Your task to perform on an android device: turn on javascript in the chrome app Image 0: 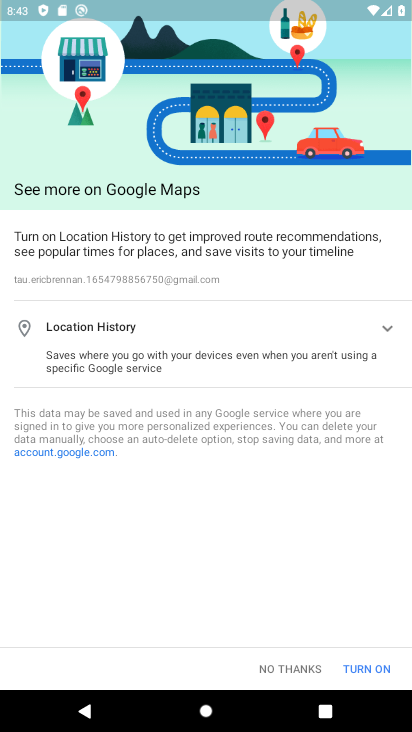
Step 0: click (304, 665)
Your task to perform on an android device: turn on javascript in the chrome app Image 1: 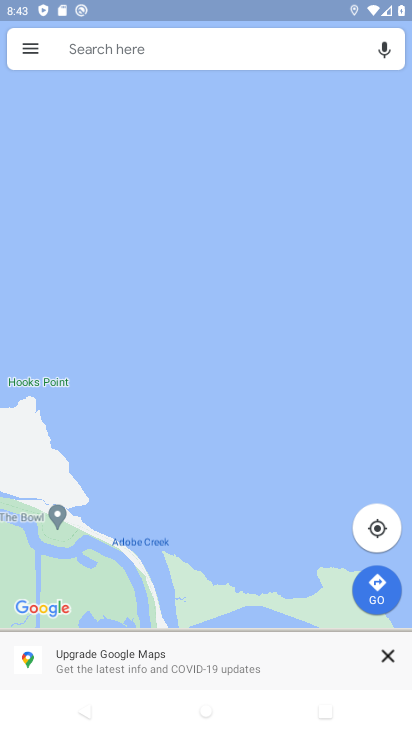
Step 1: press home button
Your task to perform on an android device: turn on javascript in the chrome app Image 2: 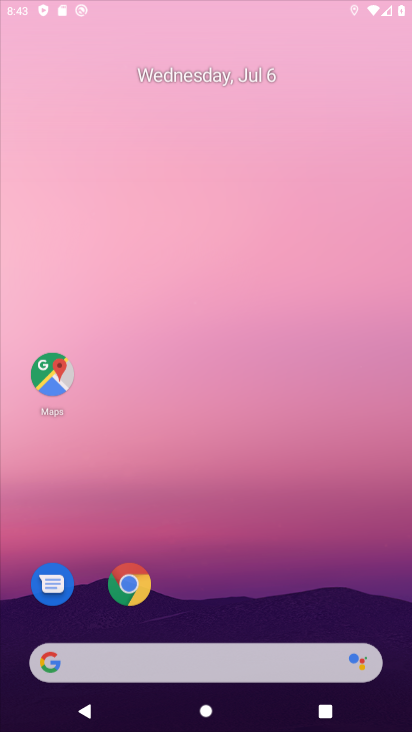
Step 2: drag from (161, 575) to (253, 122)
Your task to perform on an android device: turn on javascript in the chrome app Image 3: 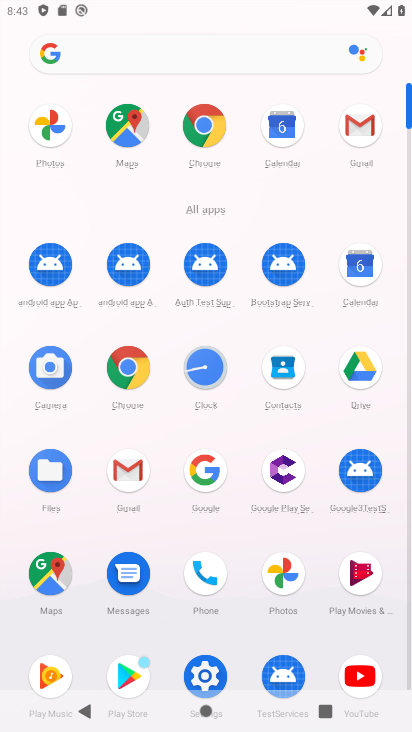
Step 3: click (125, 366)
Your task to perform on an android device: turn on javascript in the chrome app Image 4: 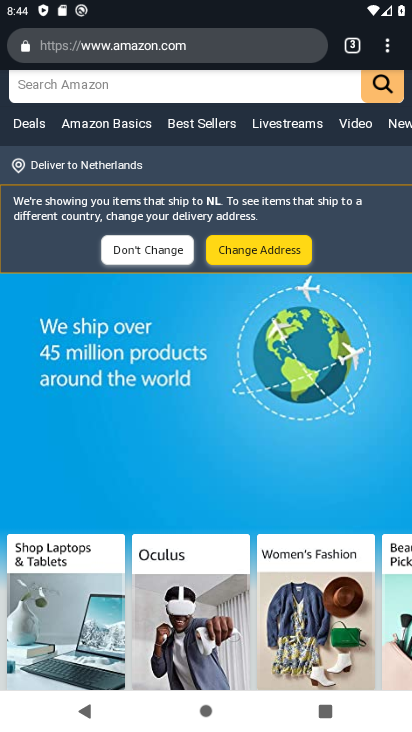
Step 4: drag from (220, 635) to (254, 366)
Your task to perform on an android device: turn on javascript in the chrome app Image 5: 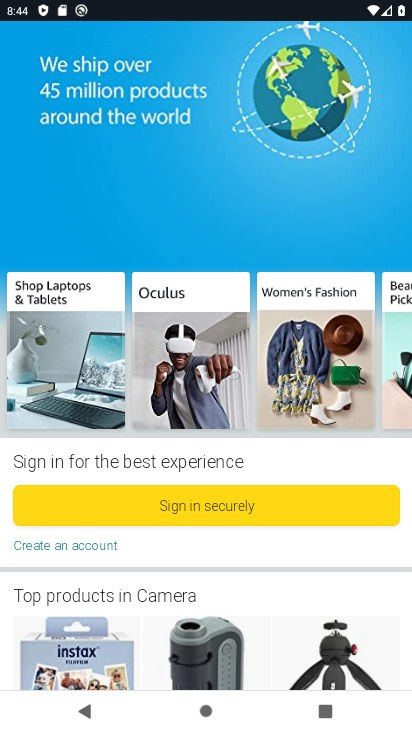
Step 5: drag from (166, 612) to (245, 242)
Your task to perform on an android device: turn on javascript in the chrome app Image 6: 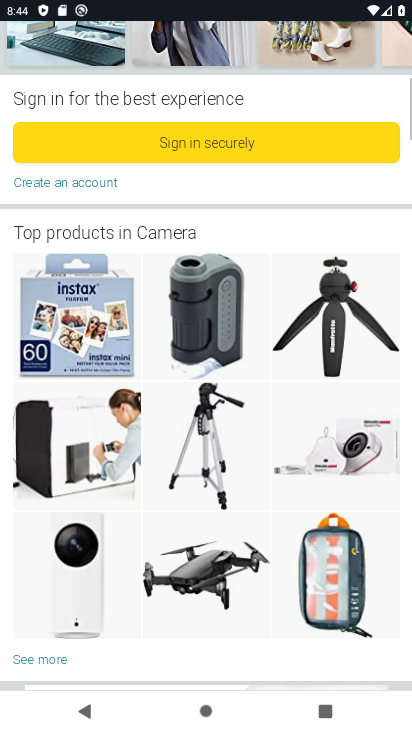
Step 6: drag from (272, 122) to (280, 728)
Your task to perform on an android device: turn on javascript in the chrome app Image 7: 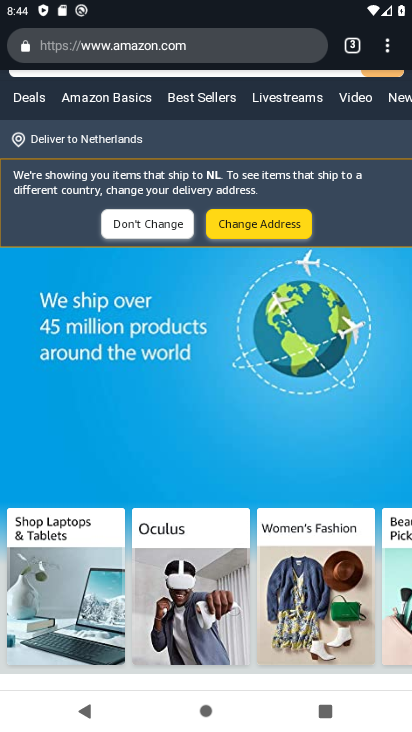
Step 7: click (384, 58)
Your task to perform on an android device: turn on javascript in the chrome app Image 8: 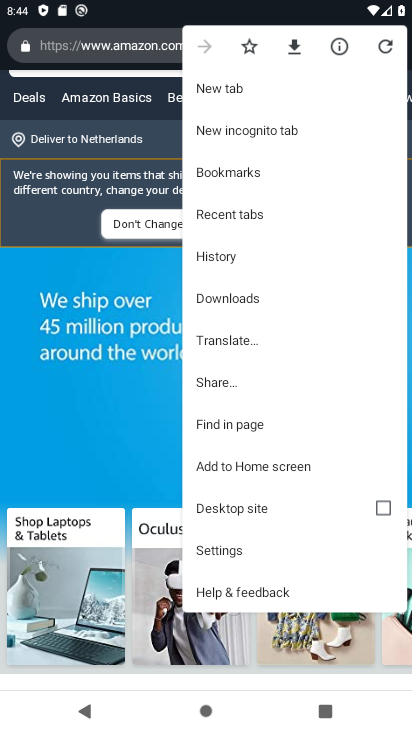
Step 8: click (254, 547)
Your task to perform on an android device: turn on javascript in the chrome app Image 9: 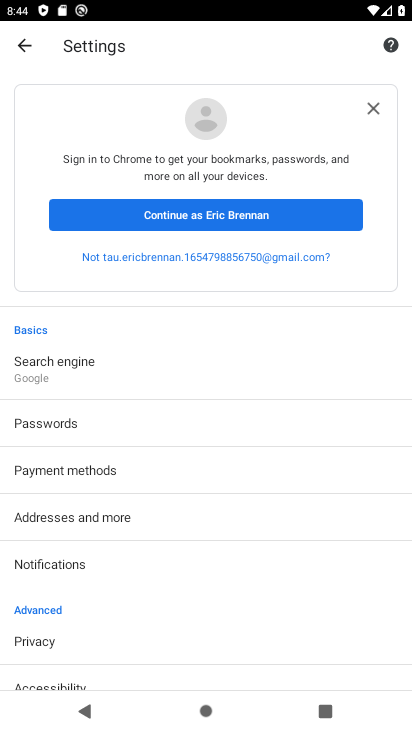
Step 9: drag from (156, 580) to (212, 262)
Your task to perform on an android device: turn on javascript in the chrome app Image 10: 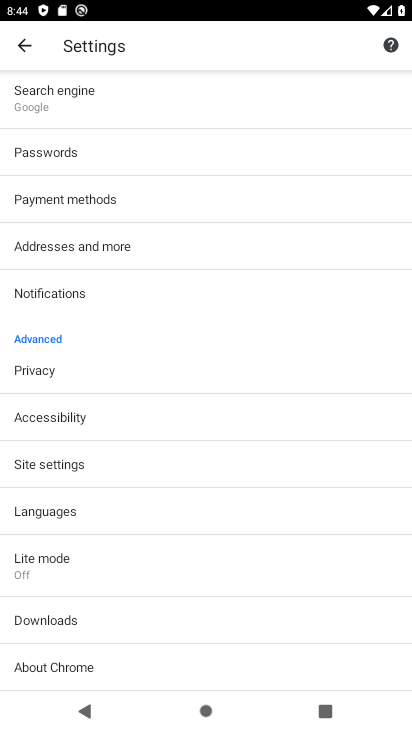
Step 10: click (97, 453)
Your task to perform on an android device: turn on javascript in the chrome app Image 11: 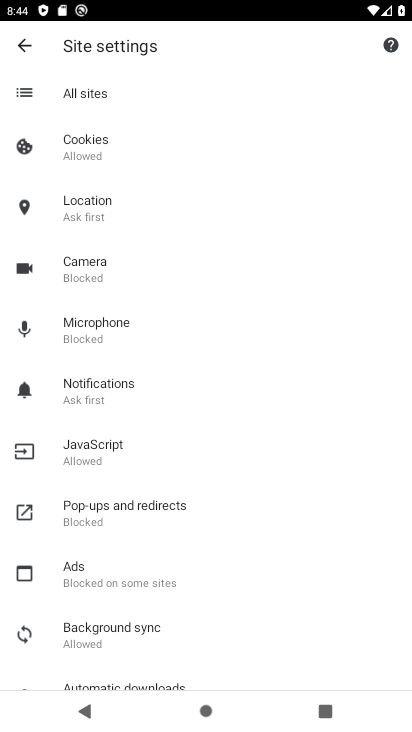
Step 11: click (129, 434)
Your task to perform on an android device: turn on javascript in the chrome app Image 12: 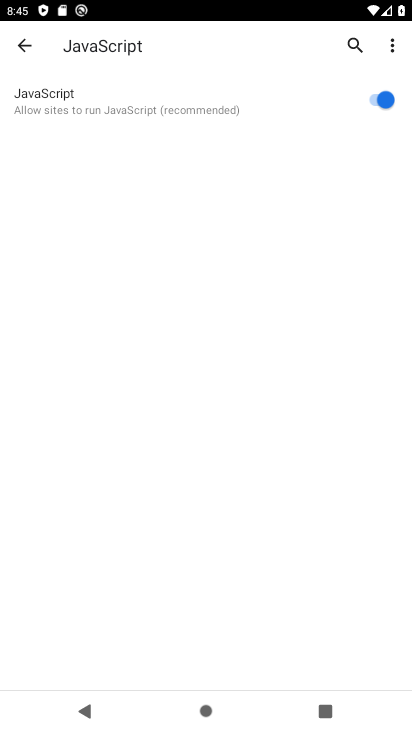
Step 12: task complete